Your task to perform on an android device: Open the phone app and click the voicemail tab. Image 0: 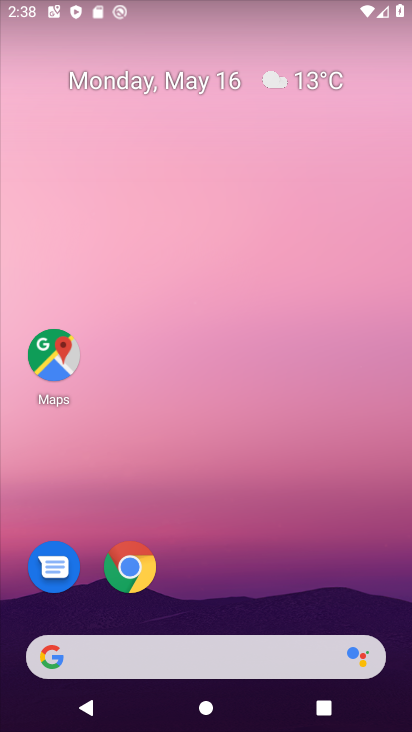
Step 0: drag from (295, 502) to (294, 99)
Your task to perform on an android device: Open the phone app and click the voicemail tab. Image 1: 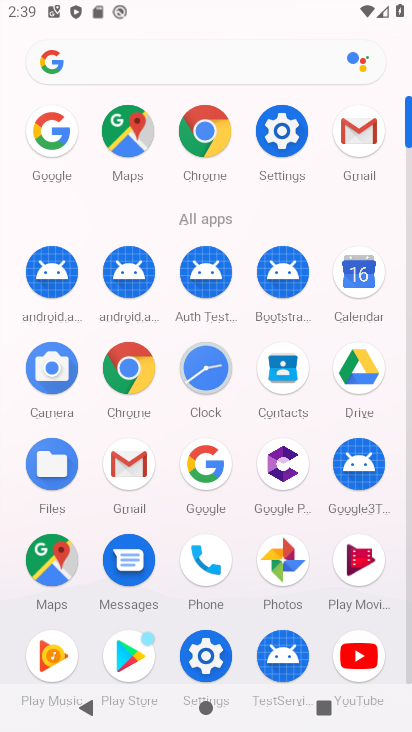
Step 1: click (211, 570)
Your task to perform on an android device: Open the phone app and click the voicemail tab. Image 2: 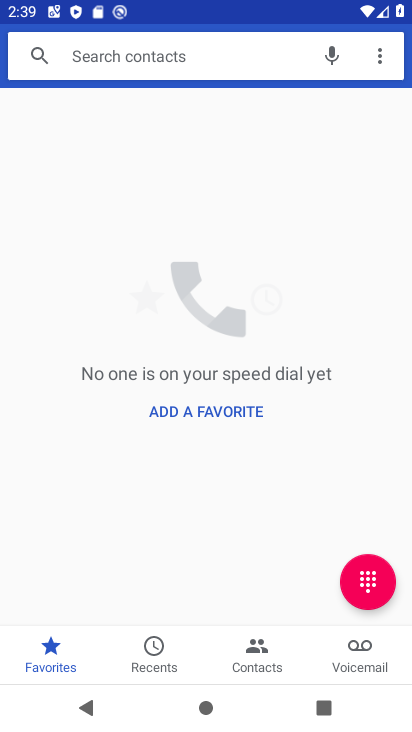
Step 2: click (362, 664)
Your task to perform on an android device: Open the phone app and click the voicemail tab. Image 3: 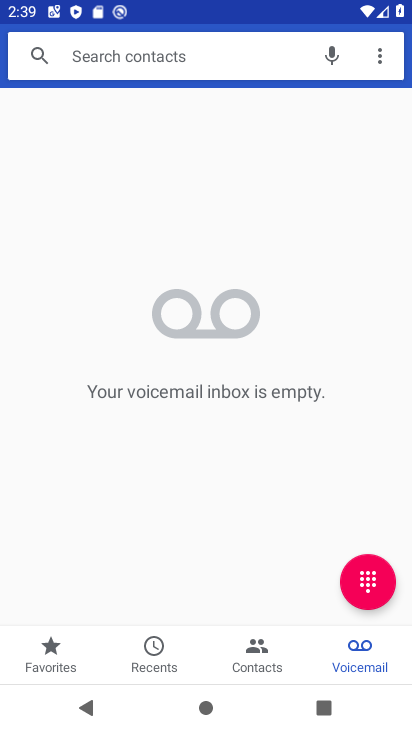
Step 3: task complete